Your task to perform on an android device: What's on my calendar today? Image 0: 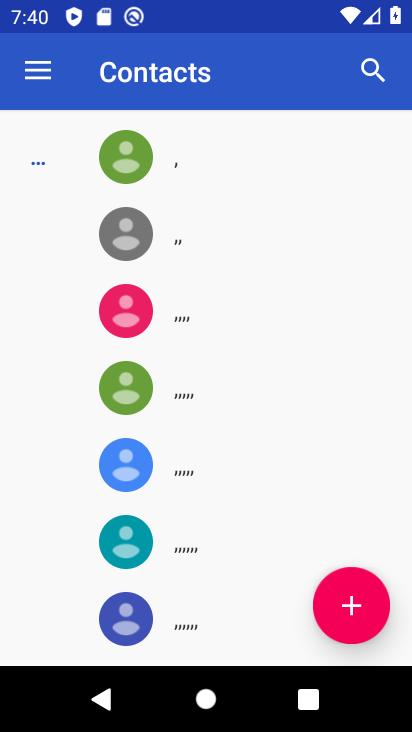
Step 0: press home button
Your task to perform on an android device: What's on my calendar today? Image 1: 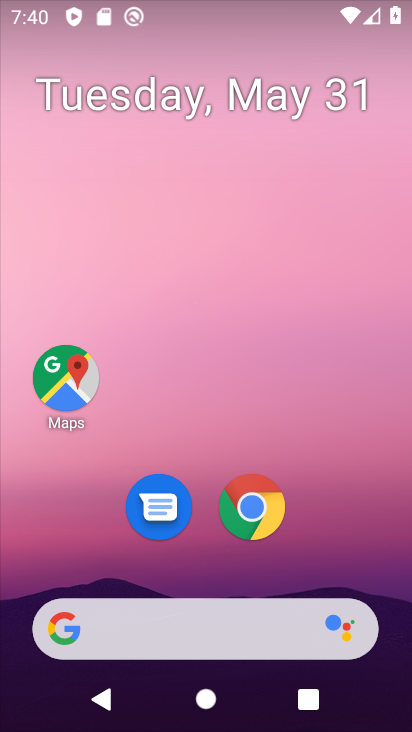
Step 1: drag from (340, 543) to (199, 96)
Your task to perform on an android device: What's on my calendar today? Image 2: 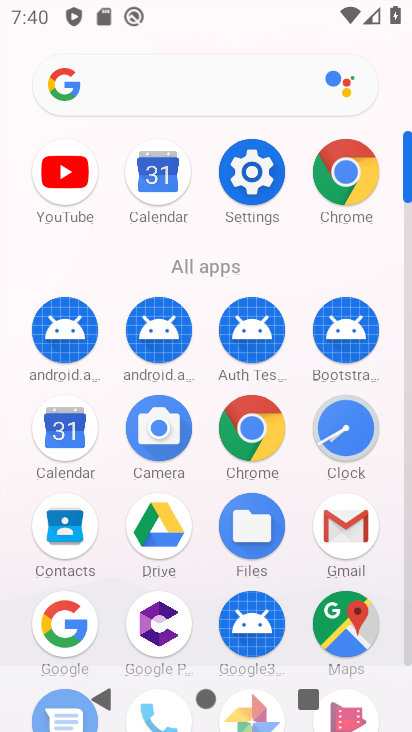
Step 2: click (68, 419)
Your task to perform on an android device: What's on my calendar today? Image 3: 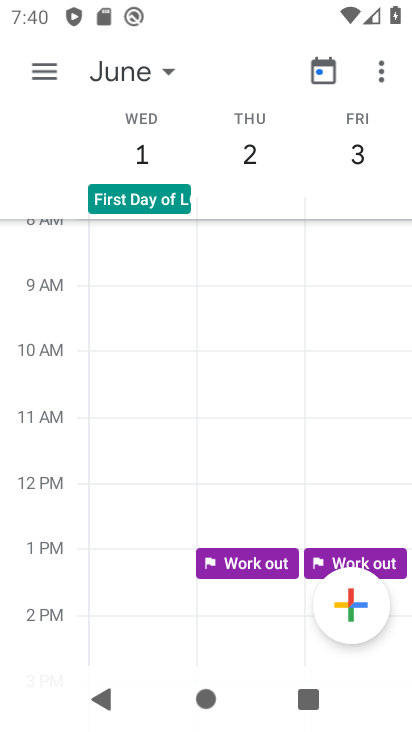
Step 3: click (135, 70)
Your task to perform on an android device: What's on my calendar today? Image 4: 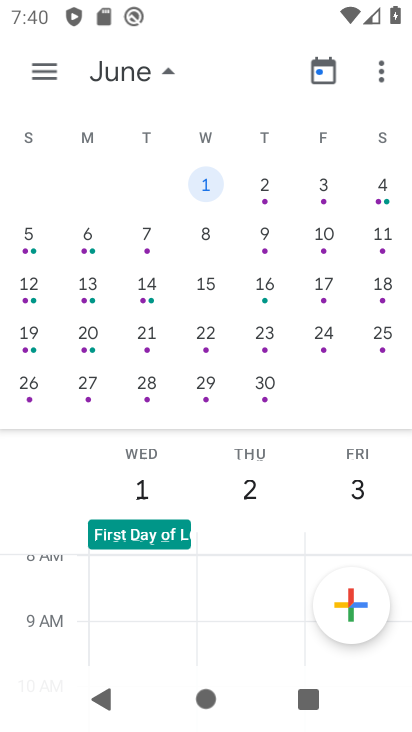
Step 4: drag from (68, 258) to (360, 262)
Your task to perform on an android device: What's on my calendar today? Image 5: 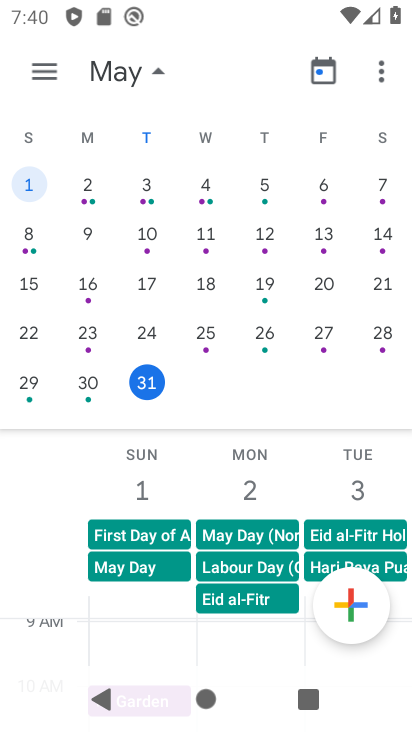
Step 5: click (140, 371)
Your task to perform on an android device: What's on my calendar today? Image 6: 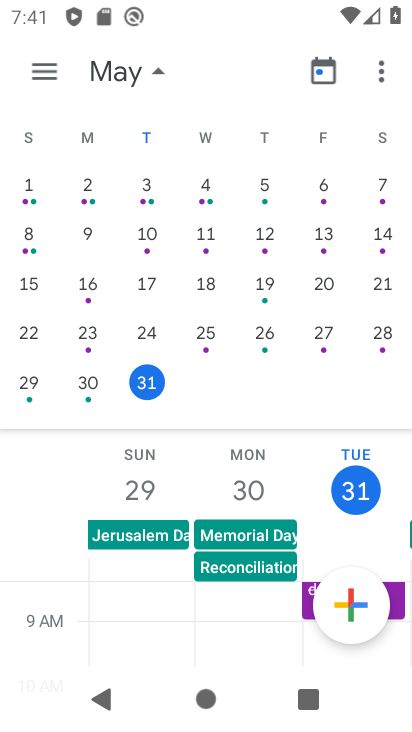
Step 6: task complete